Your task to perform on an android device: Go to Reddit.com Image 0: 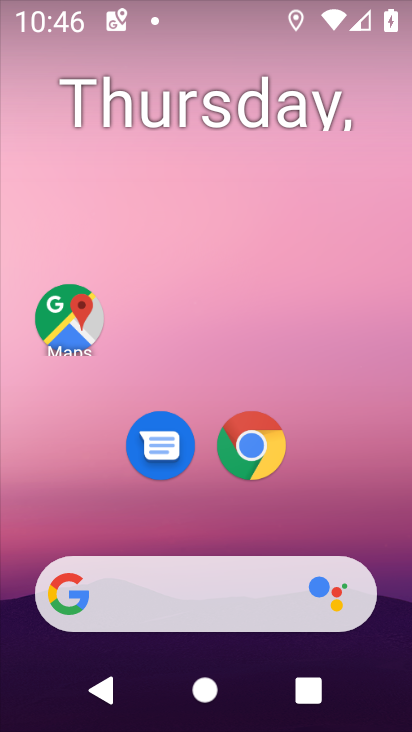
Step 0: drag from (396, 612) to (331, 46)
Your task to perform on an android device: Go to Reddit.com Image 1: 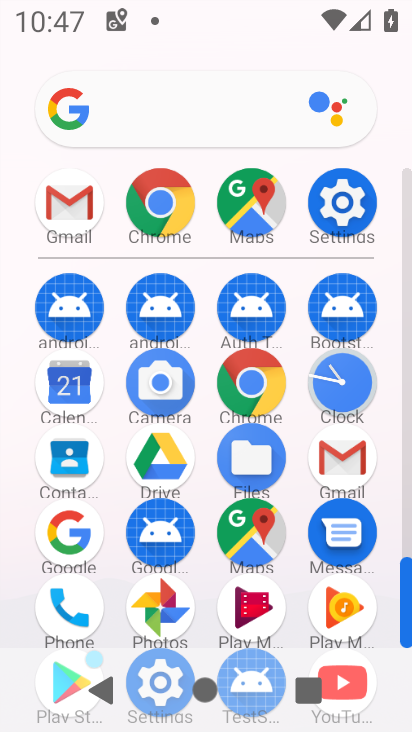
Step 1: click (249, 393)
Your task to perform on an android device: Go to Reddit.com Image 2: 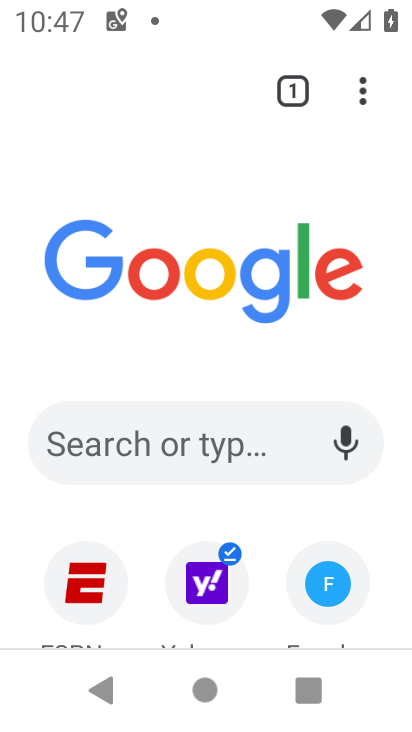
Step 2: click (179, 449)
Your task to perform on an android device: Go to Reddit.com Image 3: 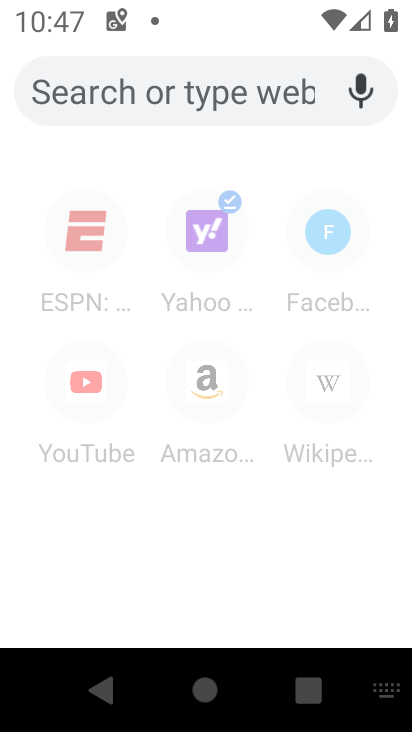
Step 3: type "reddit.com"
Your task to perform on an android device: Go to Reddit.com Image 4: 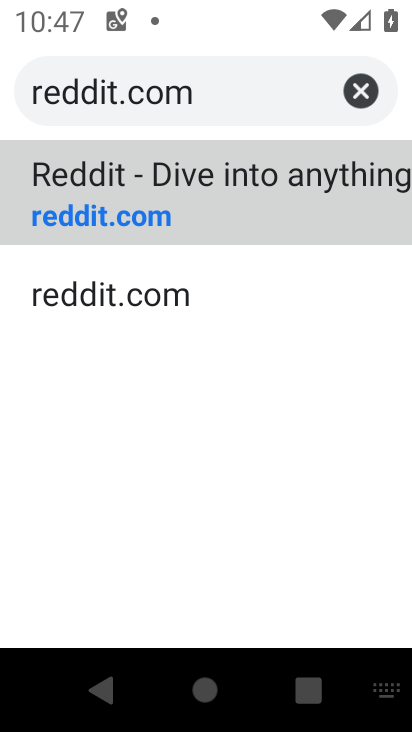
Step 4: click (231, 196)
Your task to perform on an android device: Go to Reddit.com Image 5: 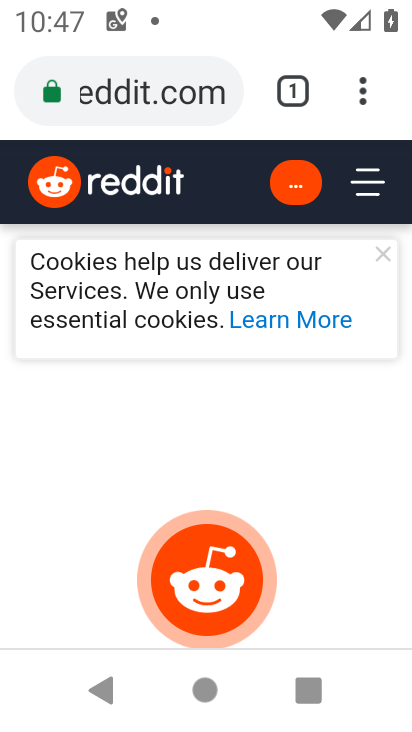
Step 5: task complete